Your task to perform on an android device: Do I have any events this weekend? Image 0: 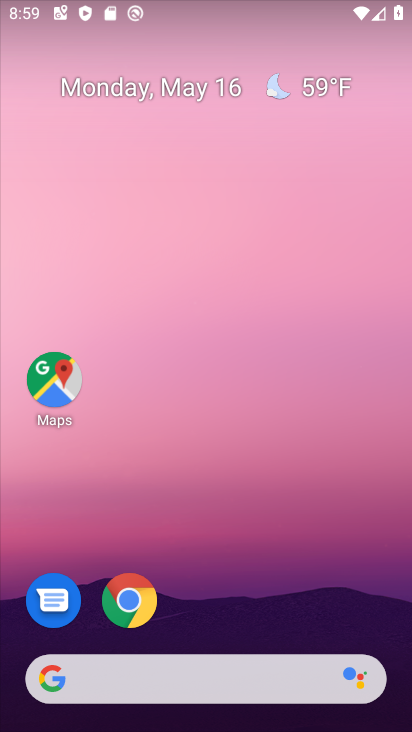
Step 0: drag from (228, 645) to (232, 256)
Your task to perform on an android device: Do I have any events this weekend? Image 1: 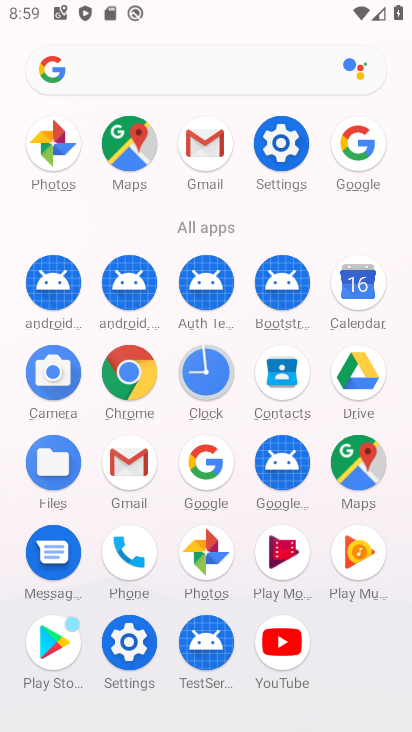
Step 1: click (335, 293)
Your task to perform on an android device: Do I have any events this weekend? Image 2: 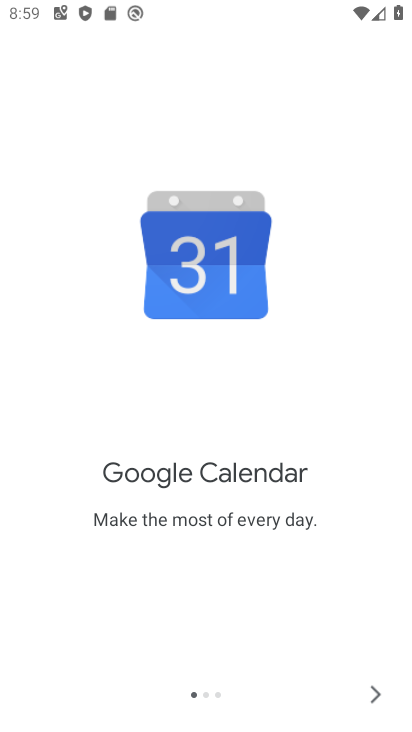
Step 2: click (366, 691)
Your task to perform on an android device: Do I have any events this weekend? Image 3: 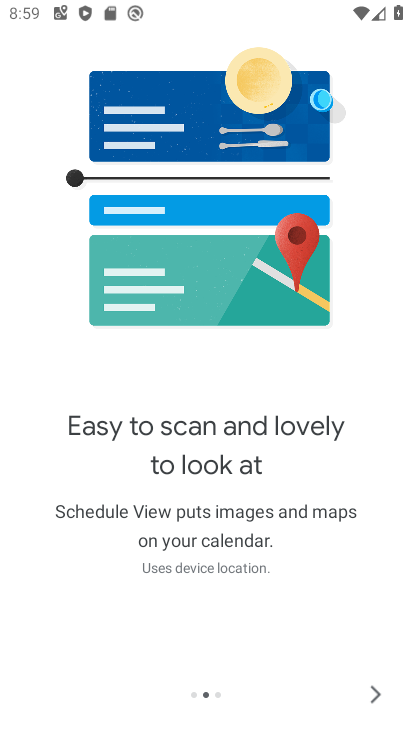
Step 3: click (366, 691)
Your task to perform on an android device: Do I have any events this weekend? Image 4: 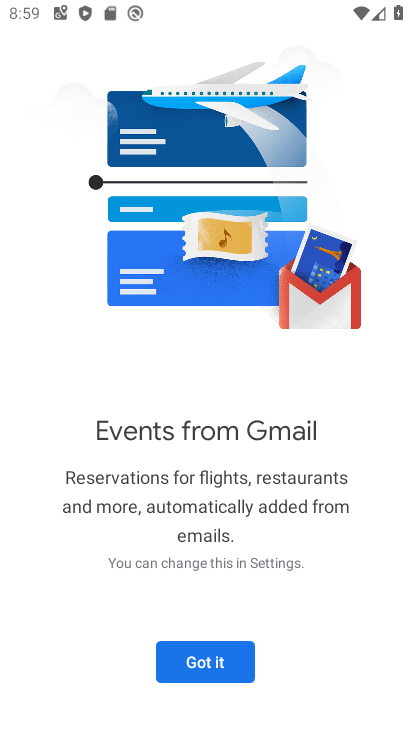
Step 4: click (226, 667)
Your task to perform on an android device: Do I have any events this weekend? Image 5: 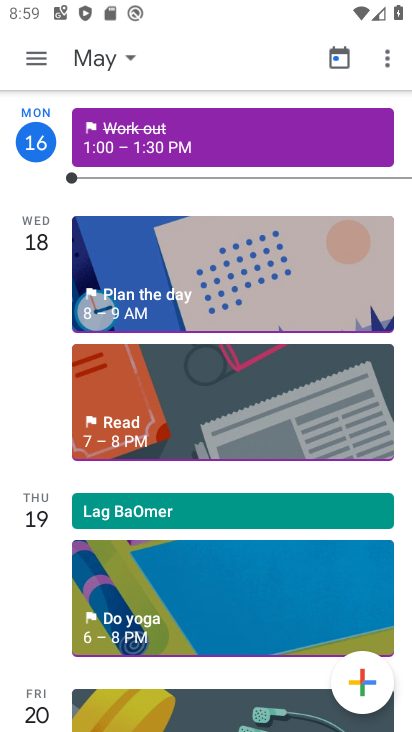
Step 5: task complete